Your task to perform on an android device: change the clock display to digital Image 0: 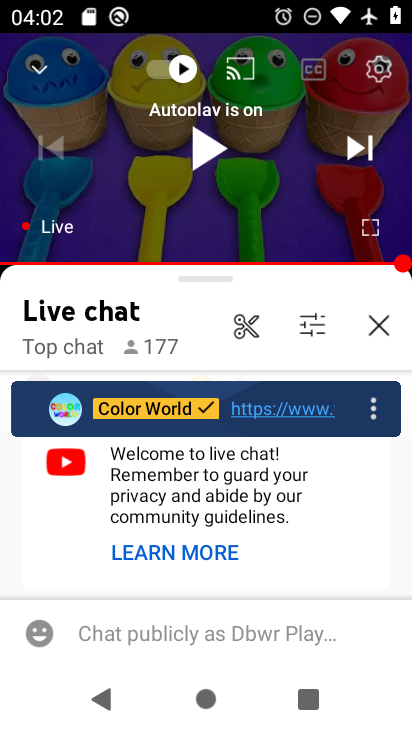
Step 0: press home button
Your task to perform on an android device: change the clock display to digital Image 1: 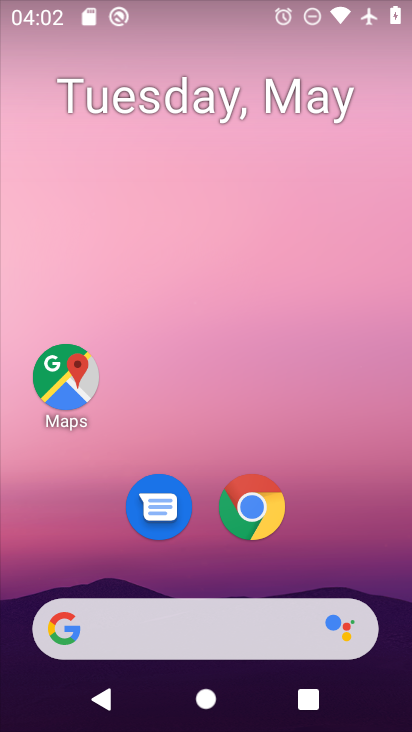
Step 1: drag from (202, 585) to (198, 167)
Your task to perform on an android device: change the clock display to digital Image 2: 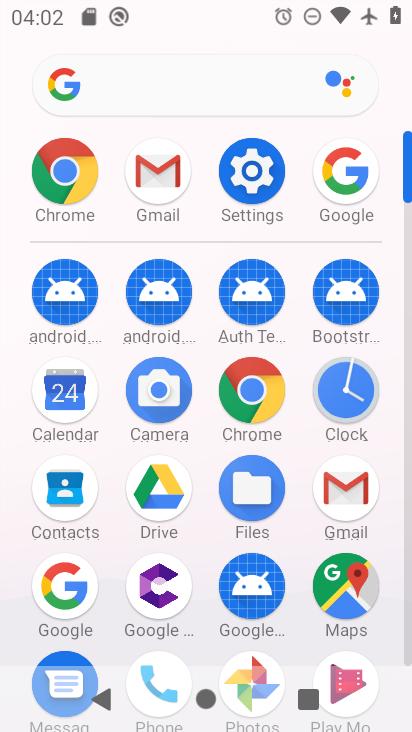
Step 2: click (351, 393)
Your task to perform on an android device: change the clock display to digital Image 3: 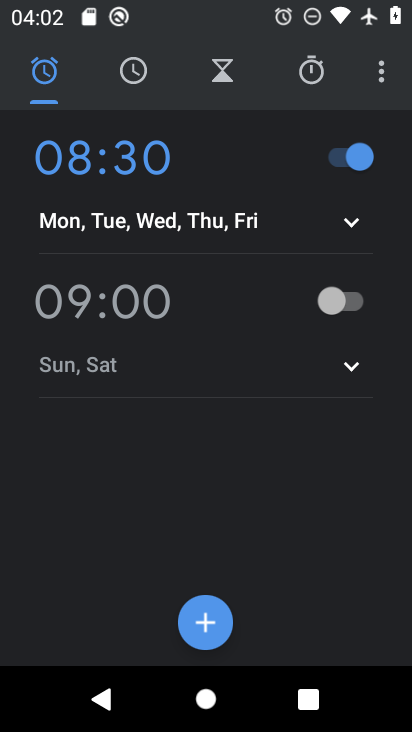
Step 3: click (375, 61)
Your task to perform on an android device: change the clock display to digital Image 4: 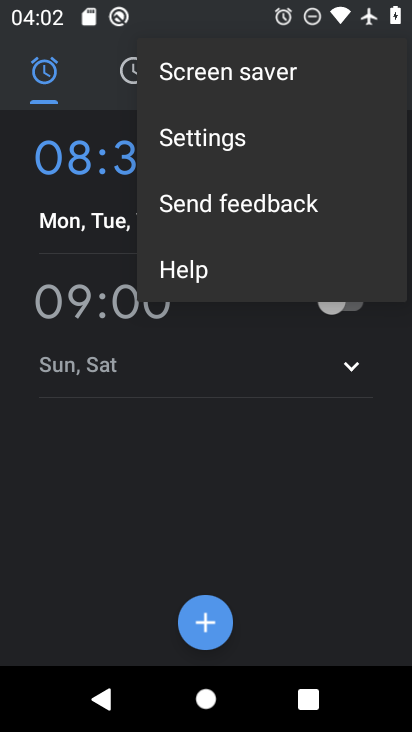
Step 4: click (197, 135)
Your task to perform on an android device: change the clock display to digital Image 5: 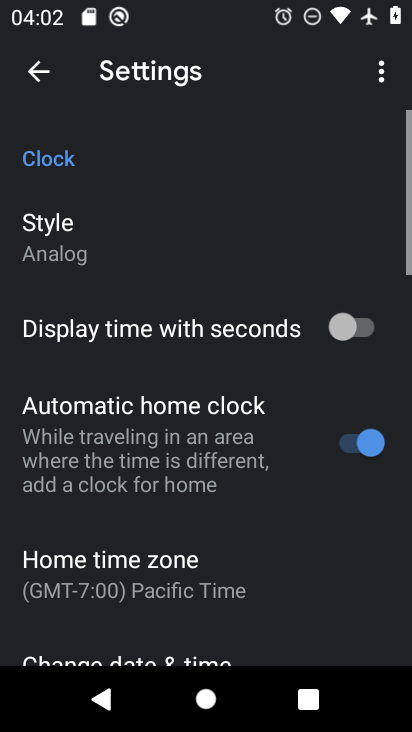
Step 5: click (84, 239)
Your task to perform on an android device: change the clock display to digital Image 6: 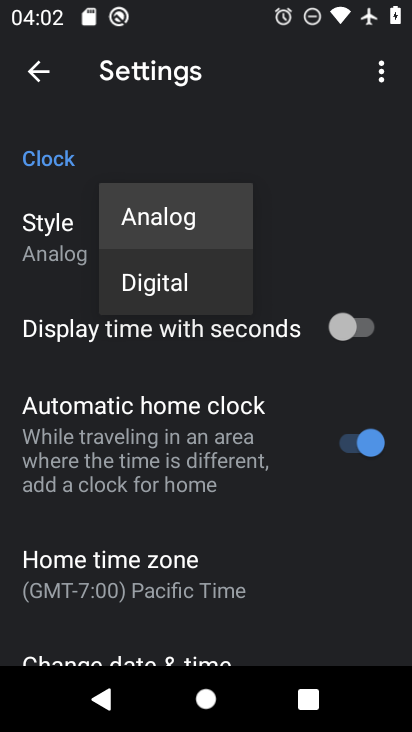
Step 6: click (129, 283)
Your task to perform on an android device: change the clock display to digital Image 7: 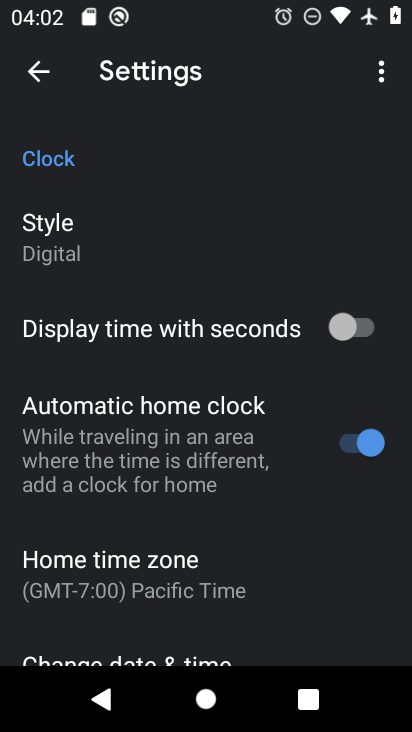
Step 7: task complete